Your task to perform on an android device: Clear the shopping cart on costco.com. Search for "bose soundlink mini" on costco.com, select the first entry, and add it to the cart. Image 0: 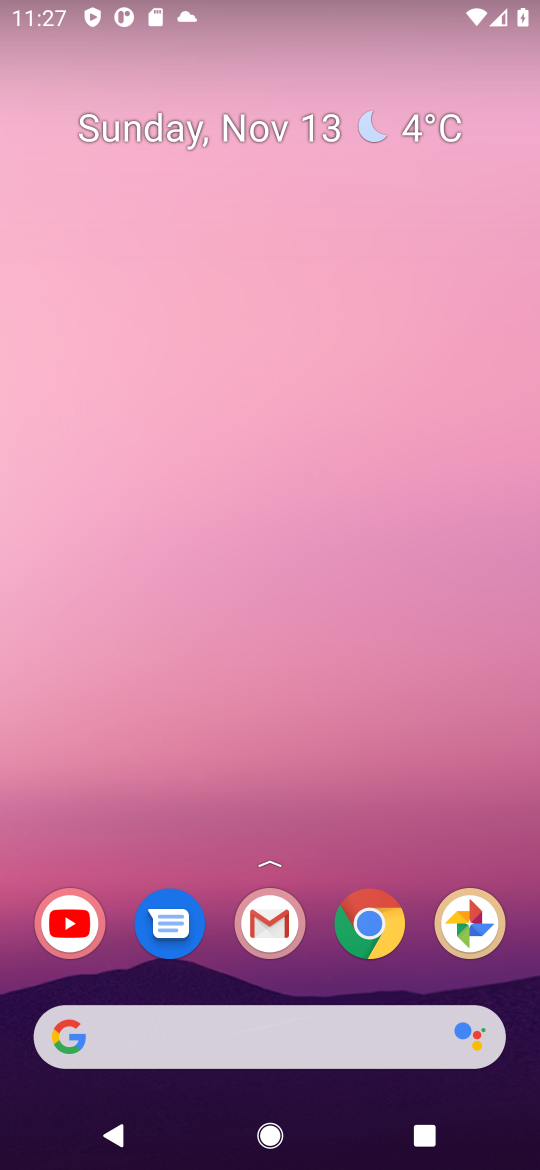
Step 0: click (380, 924)
Your task to perform on an android device: Clear the shopping cart on costco.com. Search for "bose soundlink mini" on costco.com, select the first entry, and add it to the cart. Image 1: 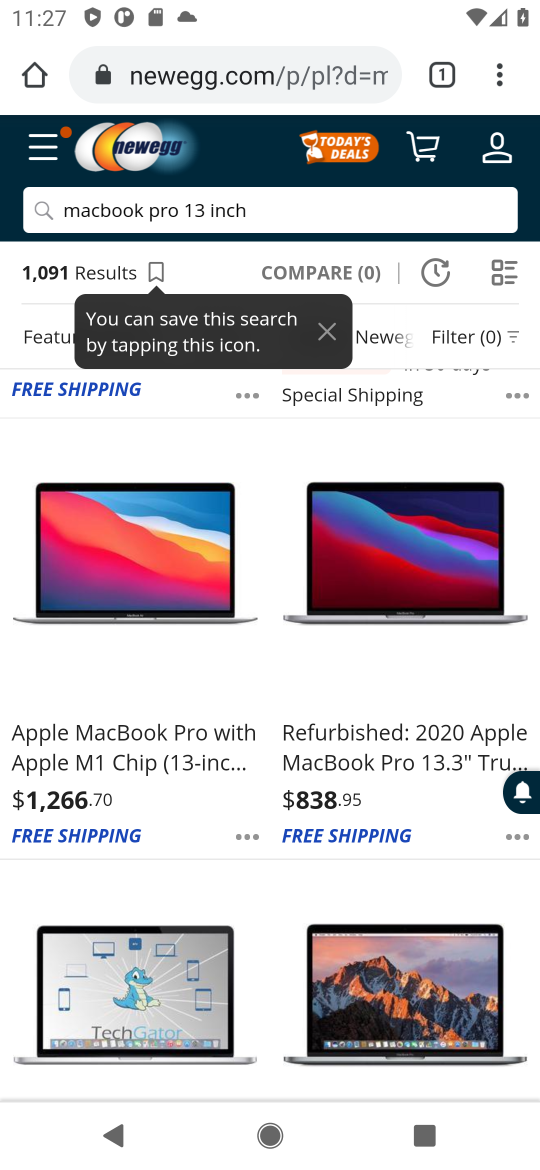
Step 1: click (279, 70)
Your task to perform on an android device: Clear the shopping cart on costco.com. Search for "bose soundlink mini" on costco.com, select the first entry, and add it to the cart. Image 2: 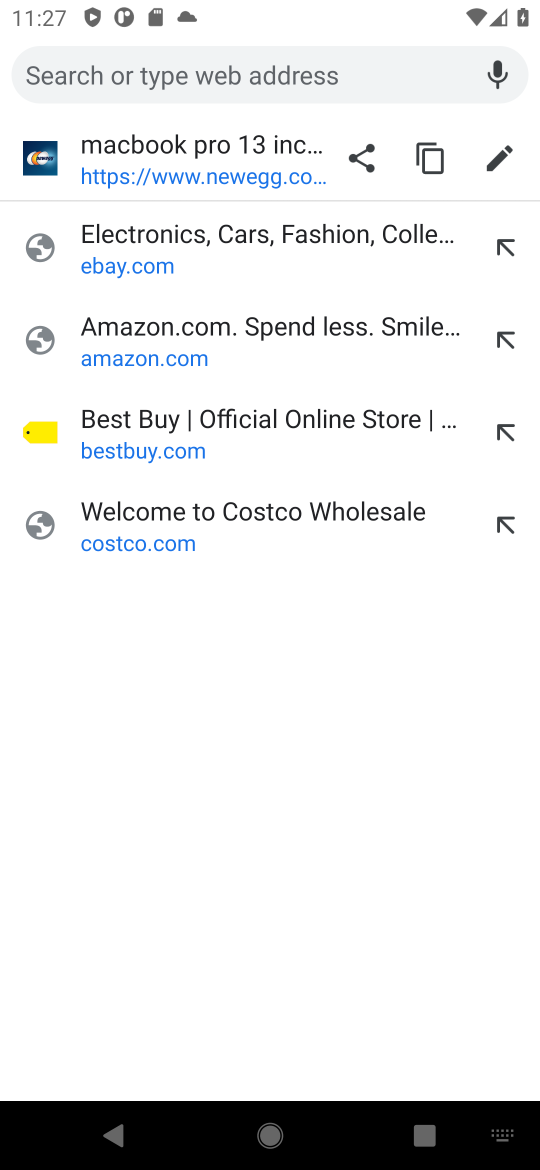
Step 2: click (221, 512)
Your task to perform on an android device: Clear the shopping cart on costco.com. Search for "bose soundlink mini" on costco.com, select the first entry, and add it to the cart. Image 3: 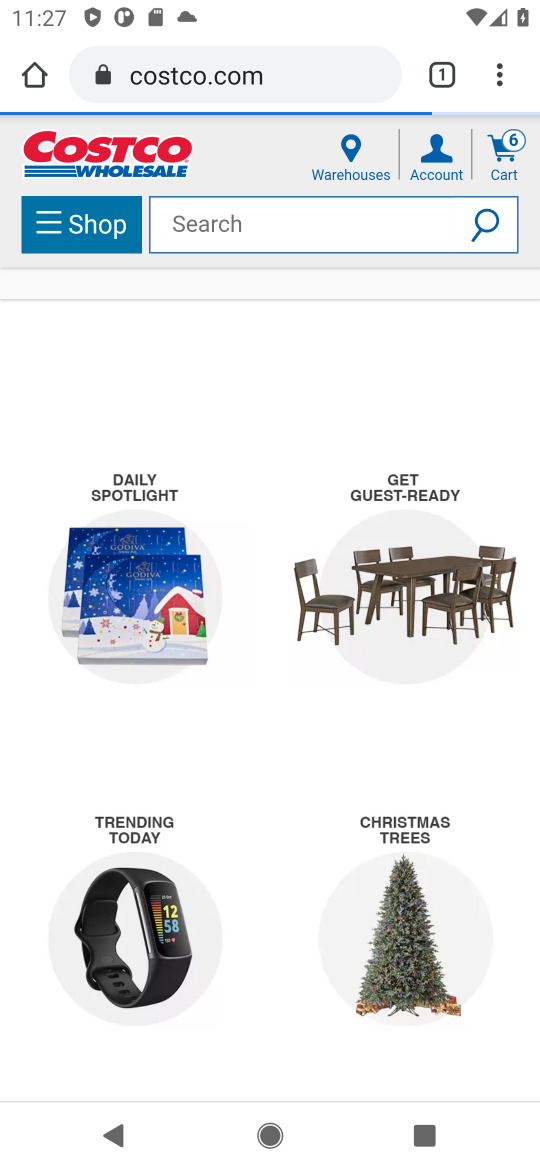
Step 3: click (495, 156)
Your task to perform on an android device: Clear the shopping cart on costco.com. Search for "bose soundlink mini" on costco.com, select the first entry, and add it to the cart. Image 4: 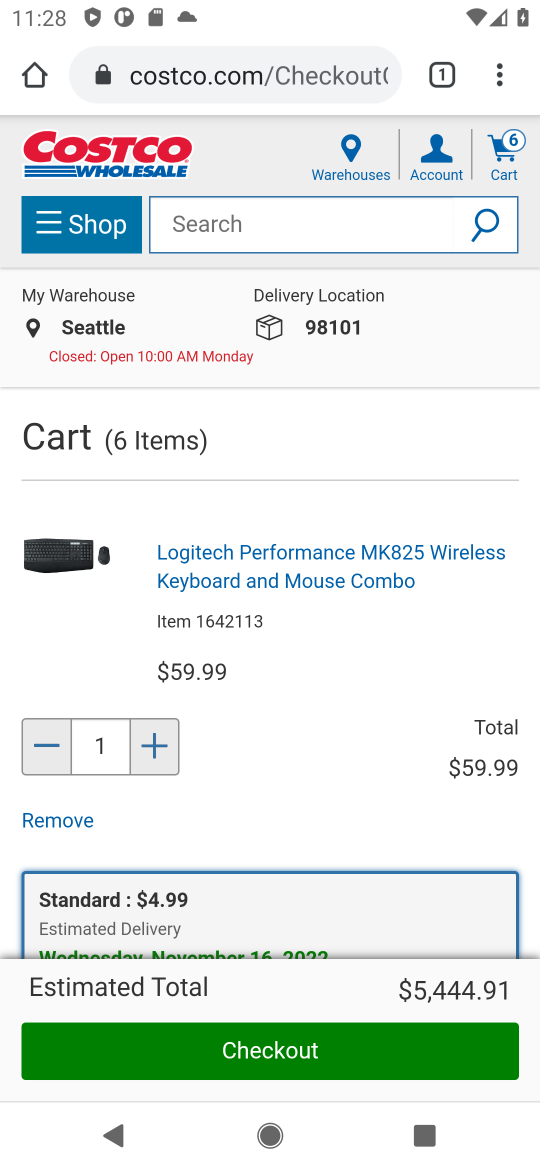
Step 4: drag from (303, 578) to (374, 313)
Your task to perform on an android device: Clear the shopping cart on costco.com. Search for "bose soundlink mini" on costco.com, select the first entry, and add it to the cart. Image 5: 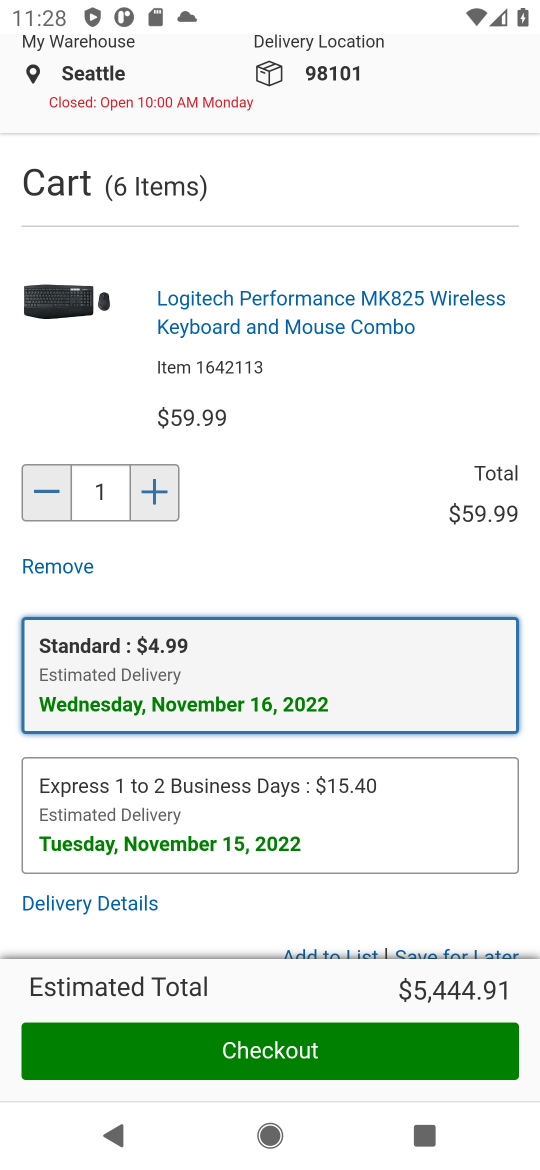
Step 5: click (34, 503)
Your task to perform on an android device: Clear the shopping cart on costco.com. Search for "bose soundlink mini" on costco.com, select the first entry, and add it to the cart. Image 6: 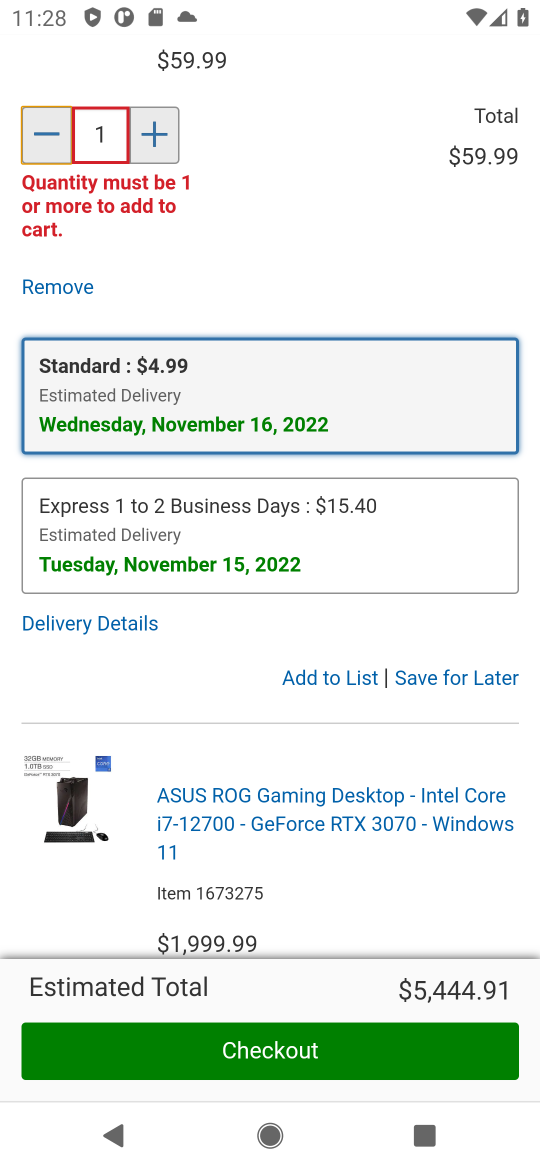
Step 6: click (72, 289)
Your task to perform on an android device: Clear the shopping cart on costco.com. Search for "bose soundlink mini" on costco.com, select the first entry, and add it to the cart. Image 7: 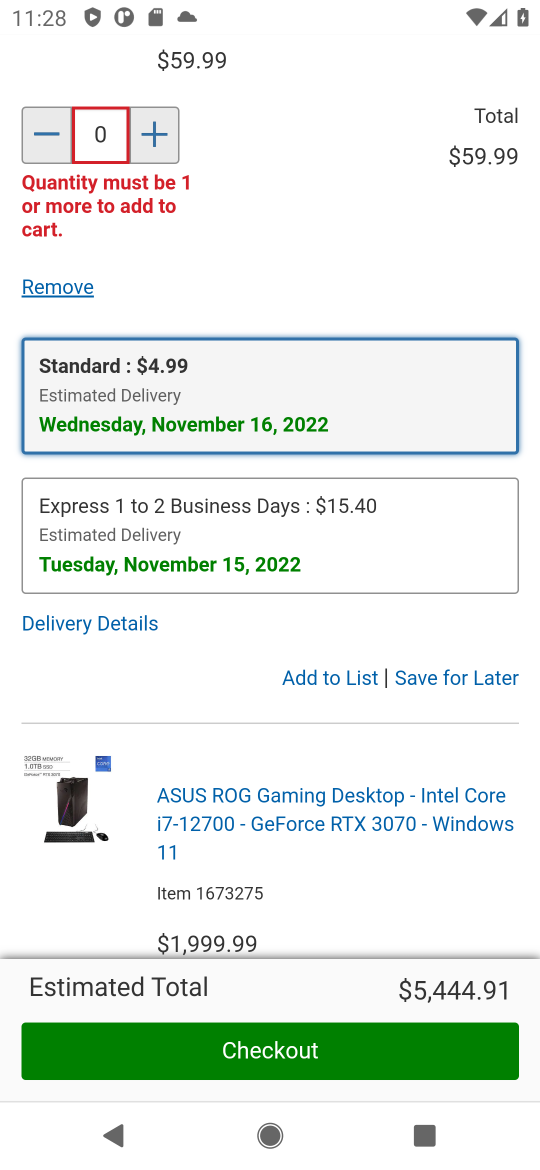
Step 7: drag from (191, 660) to (329, 235)
Your task to perform on an android device: Clear the shopping cart on costco.com. Search for "bose soundlink mini" on costco.com, select the first entry, and add it to the cart. Image 8: 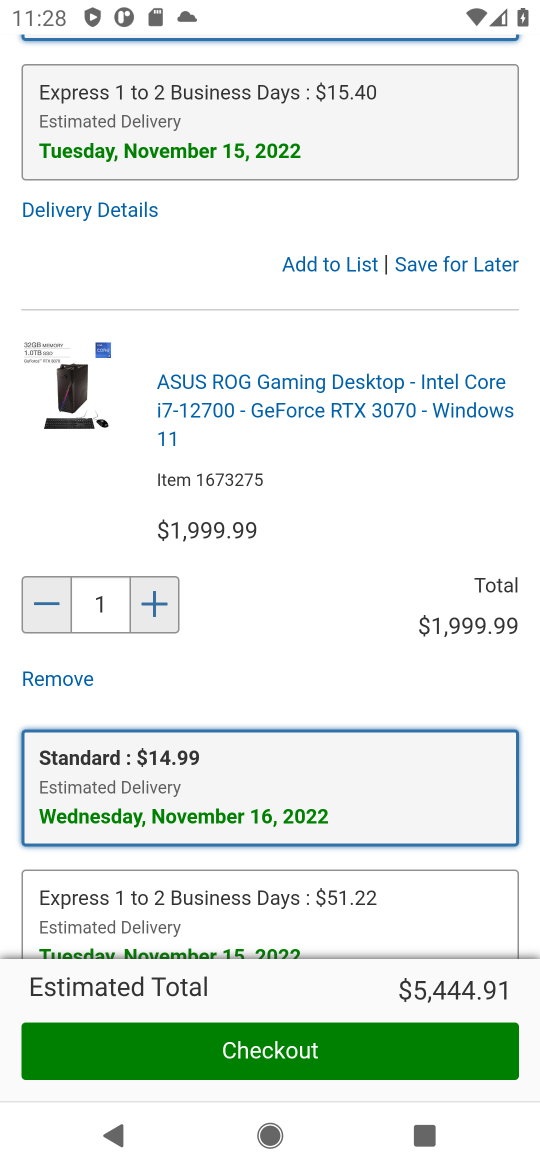
Step 8: drag from (290, 622) to (365, 430)
Your task to perform on an android device: Clear the shopping cart on costco.com. Search for "bose soundlink mini" on costco.com, select the first entry, and add it to the cart. Image 9: 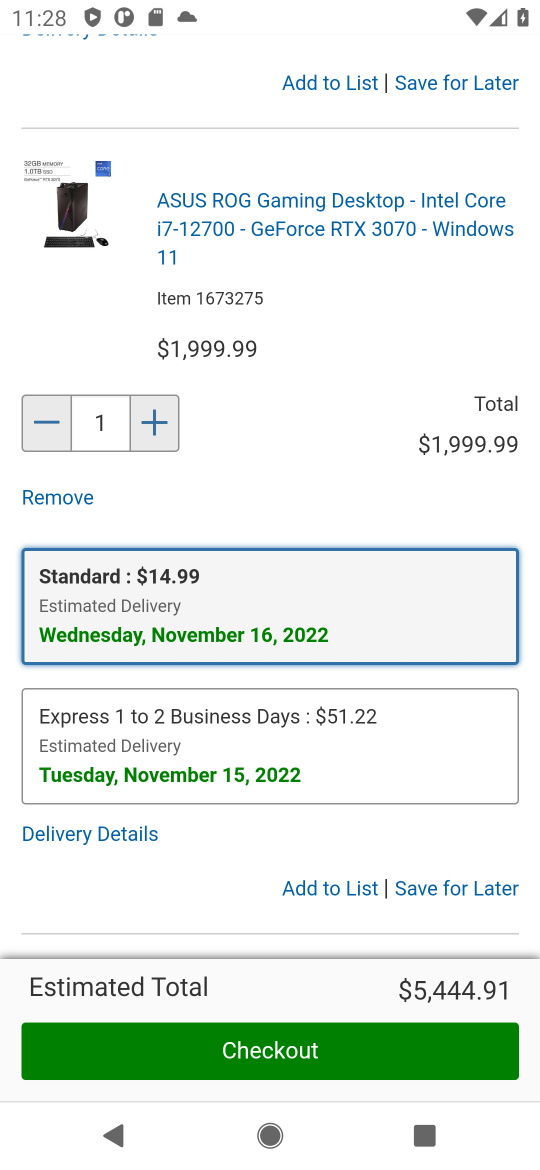
Step 9: click (29, 411)
Your task to perform on an android device: Clear the shopping cart on costco.com. Search for "bose soundlink mini" on costco.com, select the first entry, and add it to the cart. Image 10: 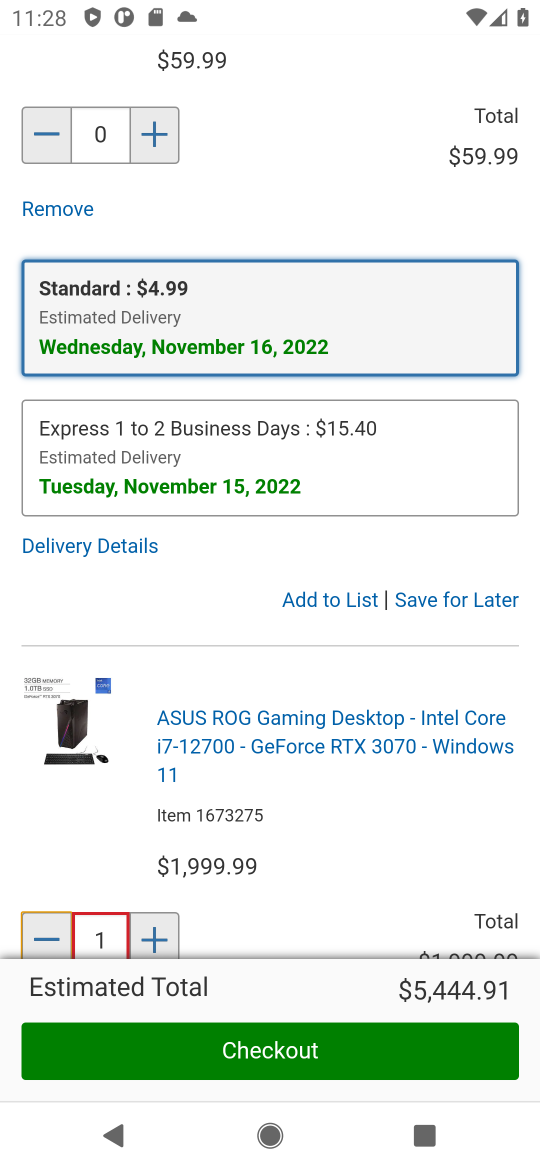
Step 10: drag from (162, 580) to (278, 353)
Your task to perform on an android device: Clear the shopping cart on costco.com. Search for "bose soundlink mini" on costco.com, select the first entry, and add it to the cart. Image 11: 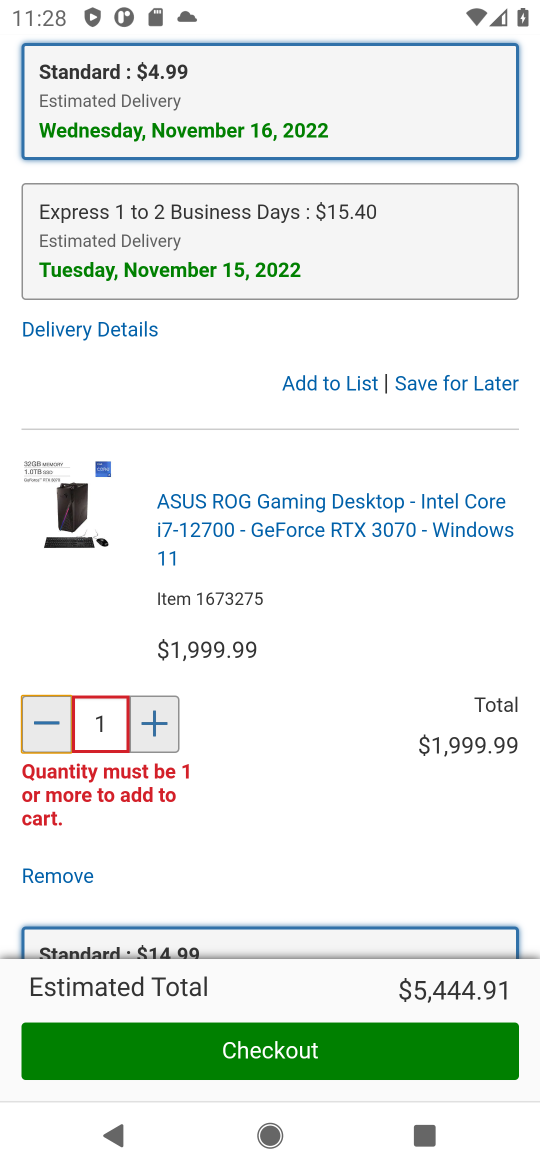
Step 11: click (70, 874)
Your task to perform on an android device: Clear the shopping cart on costco.com. Search for "bose soundlink mini" on costco.com, select the first entry, and add it to the cart. Image 12: 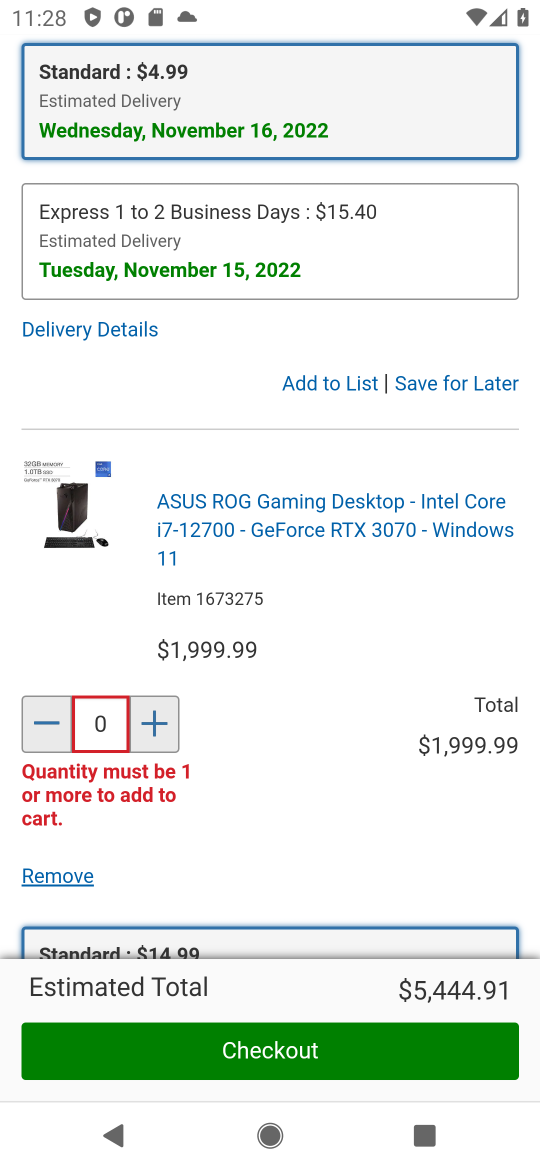
Step 12: drag from (263, 803) to (401, 305)
Your task to perform on an android device: Clear the shopping cart on costco.com. Search for "bose soundlink mini" on costco.com, select the first entry, and add it to the cart. Image 13: 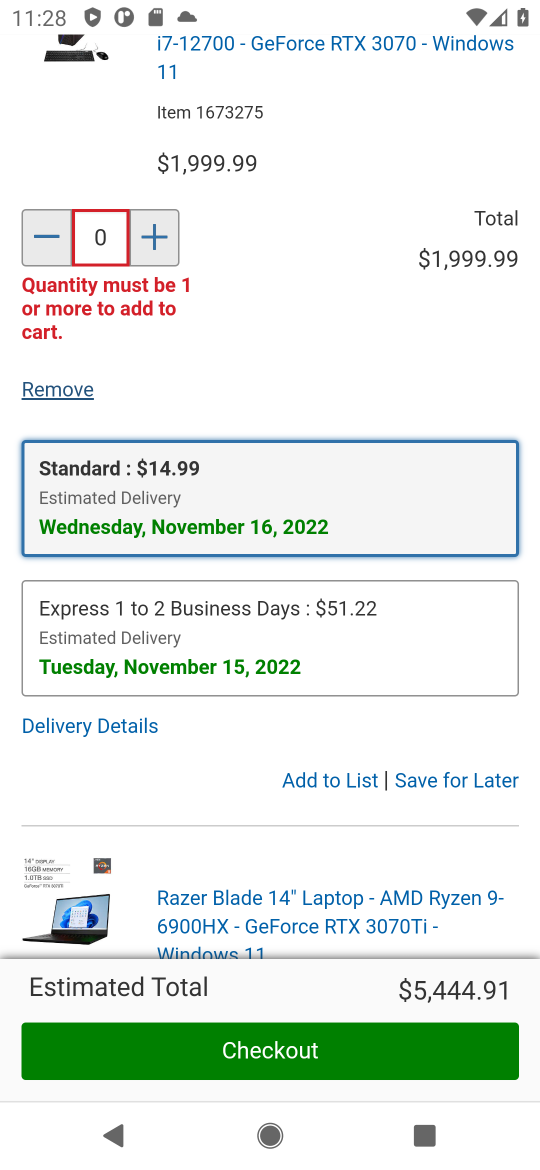
Step 13: drag from (185, 809) to (281, 510)
Your task to perform on an android device: Clear the shopping cart on costco.com. Search for "bose soundlink mini" on costco.com, select the first entry, and add it to the cart. Image 14: 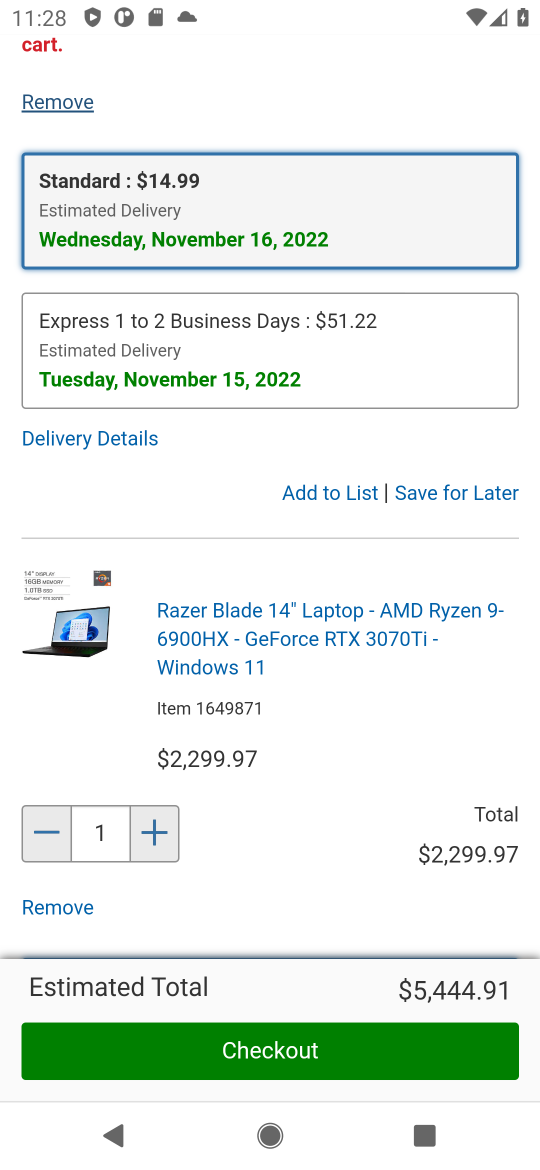
Step 14: click (51, 844)
Your task to perform on an android device: Clear the shopping cart on costco.com. Search for "bose soundlink mini" on costco.com, select the first entry, and add it to the cart. Image 15: 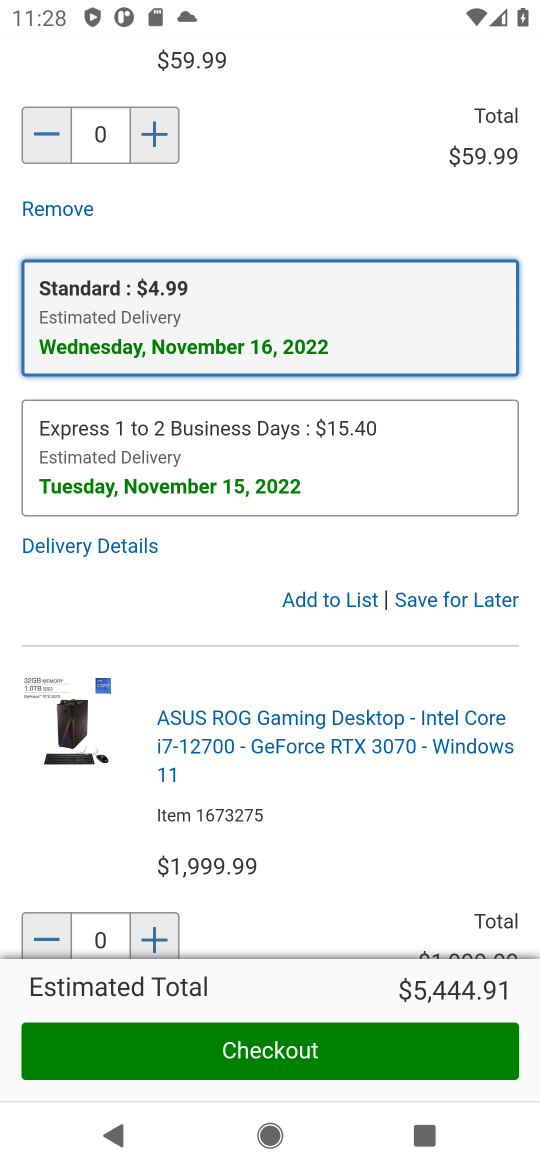
Step 15: drag from (310, 879) to (461, 252)
Your task to perform on an android device: Clear the shopping cart on costco.com. Search for "bose soundlink mini" on costco.com, select the first entry, and add it to the cart. Image 16: 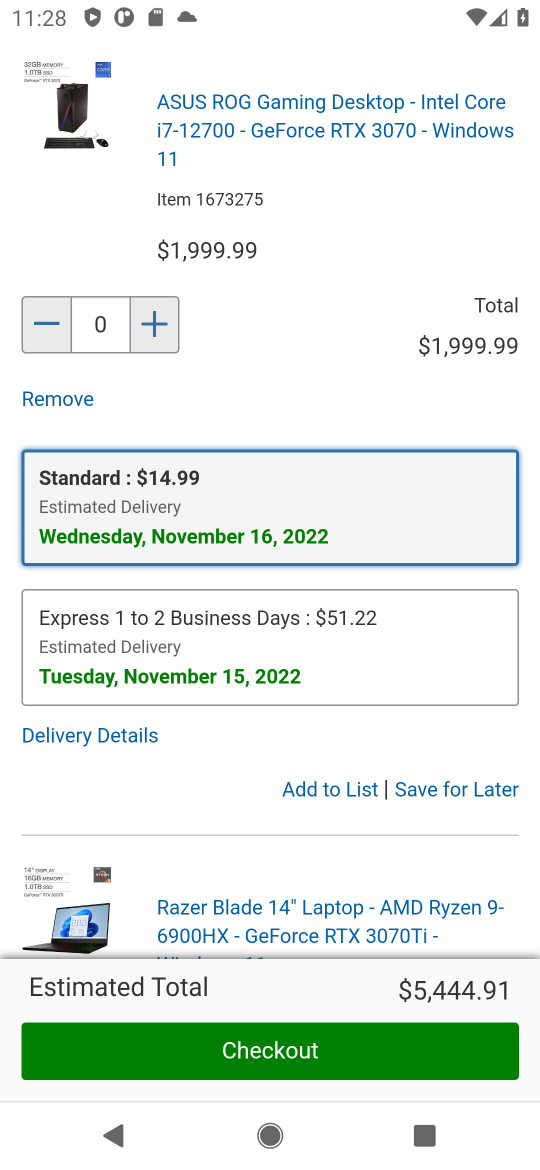
Step 16: click (60, 334)
Your task to perform on an android device: Clear the shopping cart on costco.com. Search for "bose soundlink mini" on costco.com, select the first entry, and add it to the cart. Image 17: 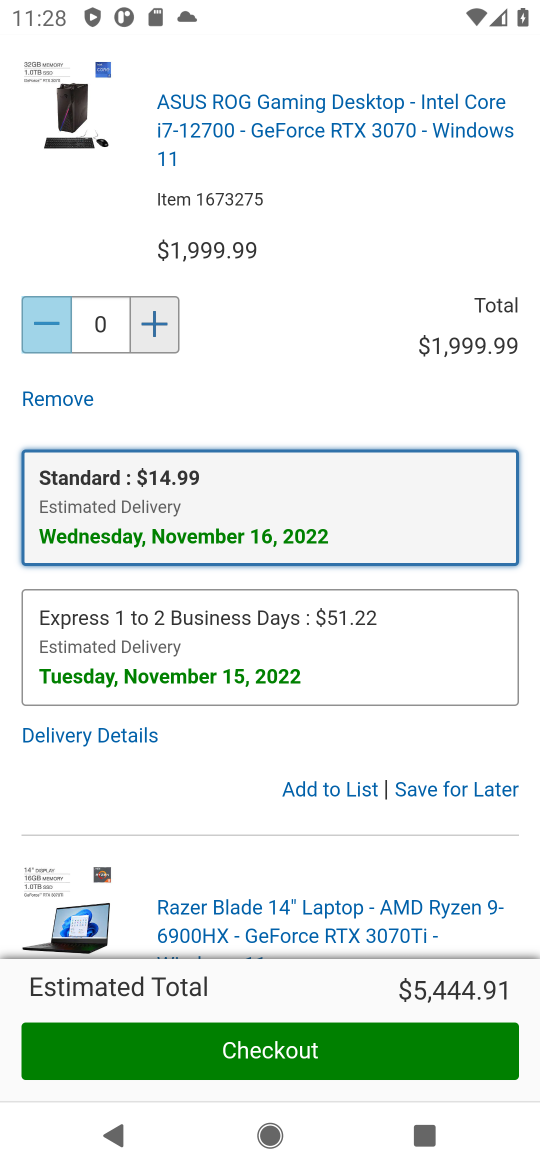
Step 17: click (73, 404)
Your task to perform on an android device: Clear the shopping cart on costco.com. Search for "bose soundlink mini" on costco.com, select the first entry, and add it to the cart. Image 18: 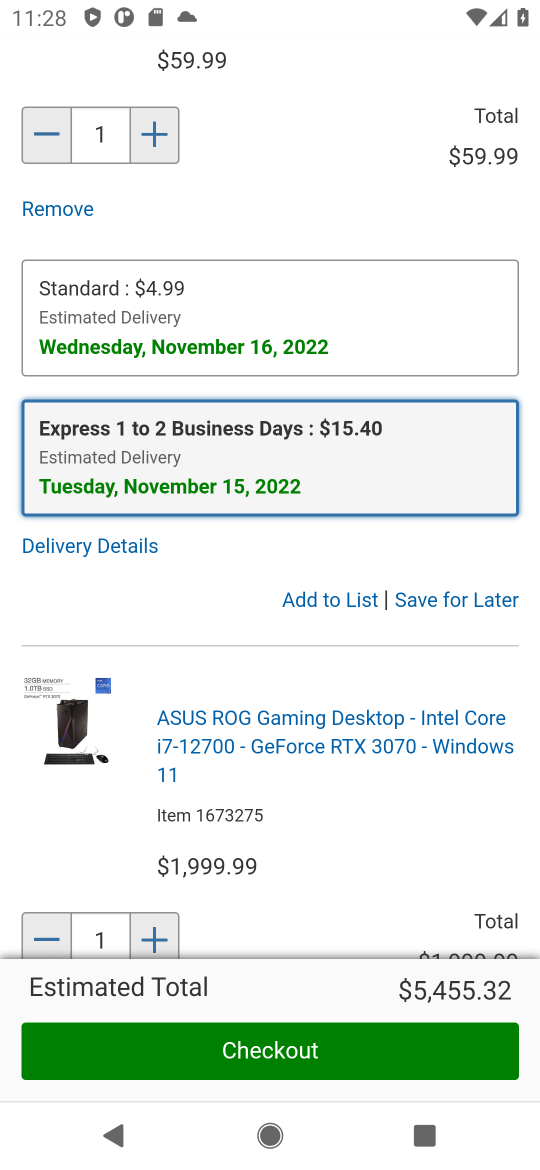
Step 18: drag from (286, 821) to (410, 234)
Your task to perform on an android device: Clear the shopping cart on costco.com. Search for "bose soundlink mini" on costco.com, select the first entry, and add it to the cart. Image 19: 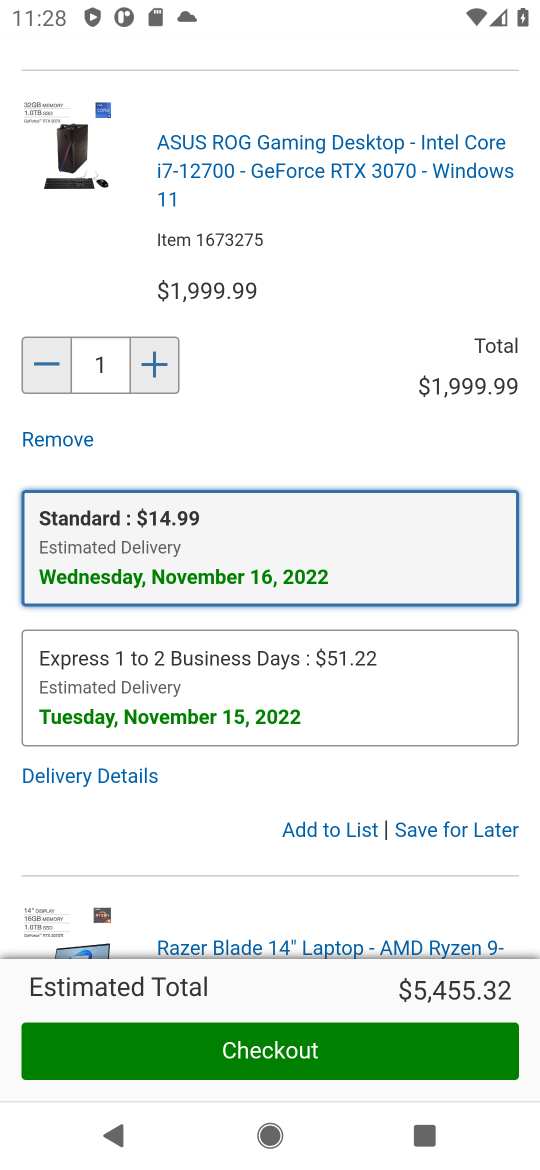
Step 19: click (31, 357)
Your task to perform on an android device: Clear the shopping cart on costco.com. Search for "bose soundlink mini" on costco.com, select the first entry, and add it to the cart. Image 20: 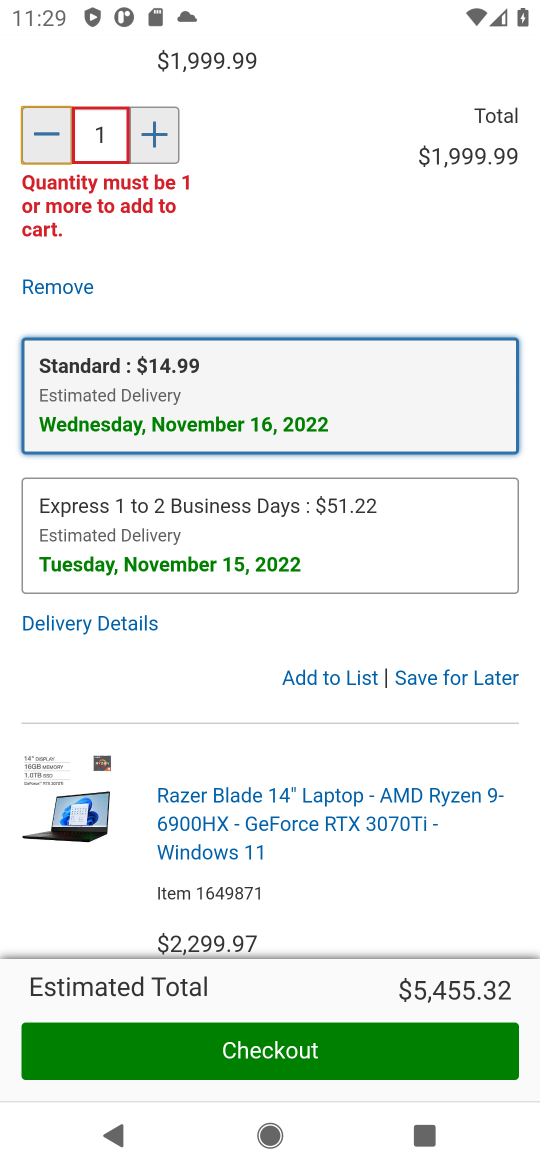
Step 20: click (72, 288)
Your task to perform on an android device: Clear the shopping cart on costco.com. Search for "bose soundlink mini" on costco.com, select the first entry, and add it to the cart. Image 21: 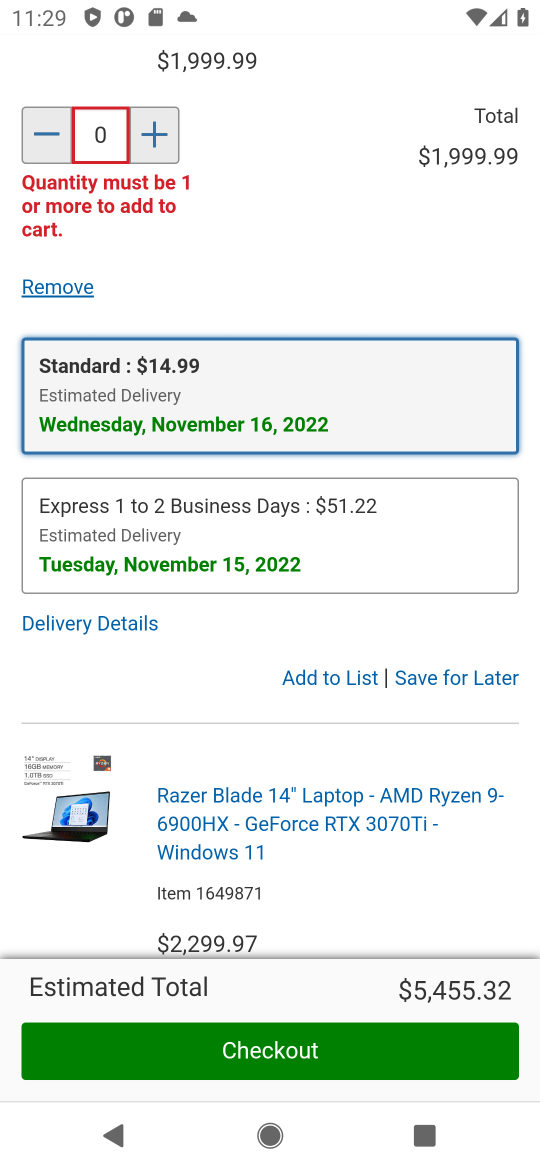
Step 21: drag from (219, 645) to (267, 130)
Your task to perform on an android device: Clear the shopping cart on costco.com. Search for "bose soundlink mini" on costco.com, select the first entry, and add it to the cart. Image 22: 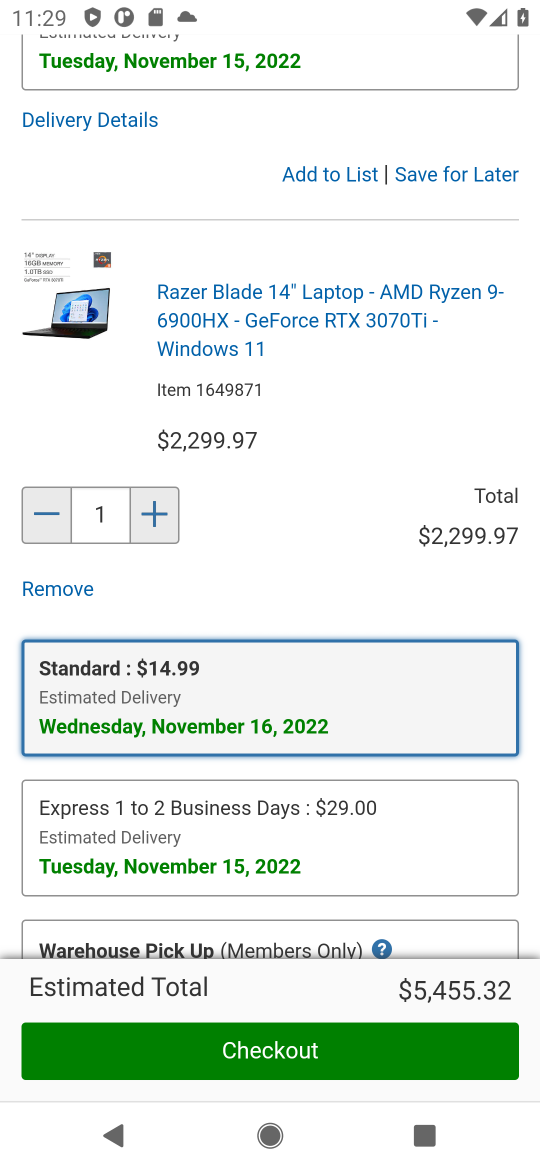
Step 22: click (52, 508)
Your task to perform on an android device: Clear the shopping cart on costco.com. Search for "bose soundlink mini" on costco.com, select the first entry, and add it to the cart. Image 23: 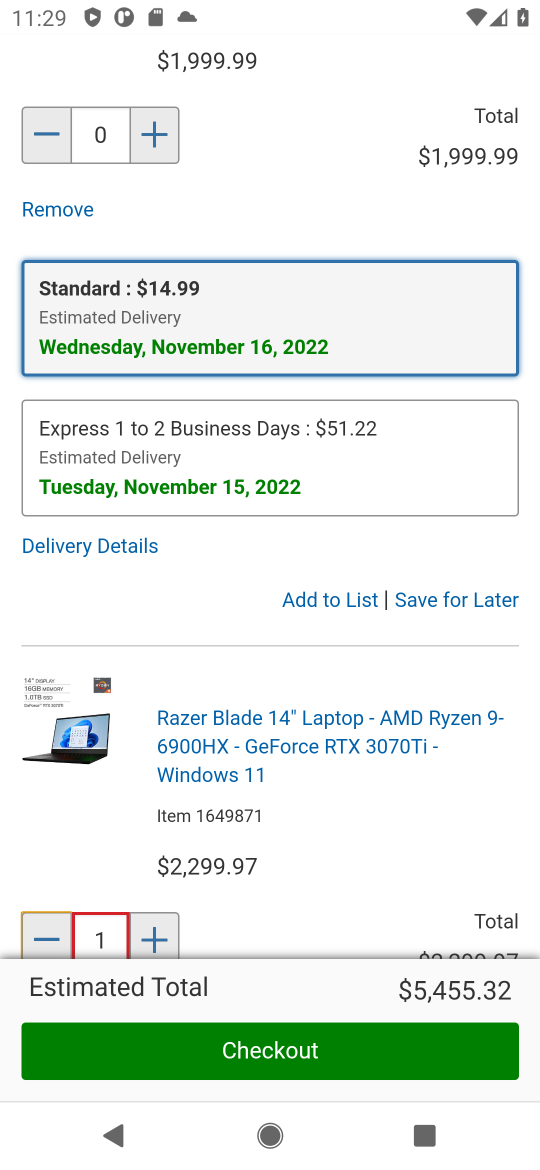
Step 23: drag from (188, 555) to (265, 267)
Your task to perform on an android device: Clear the shopping cart on costco.com. Search for "bose soundlink mini" on costco.com, select the first entry, and add it to the cart. Image 24: 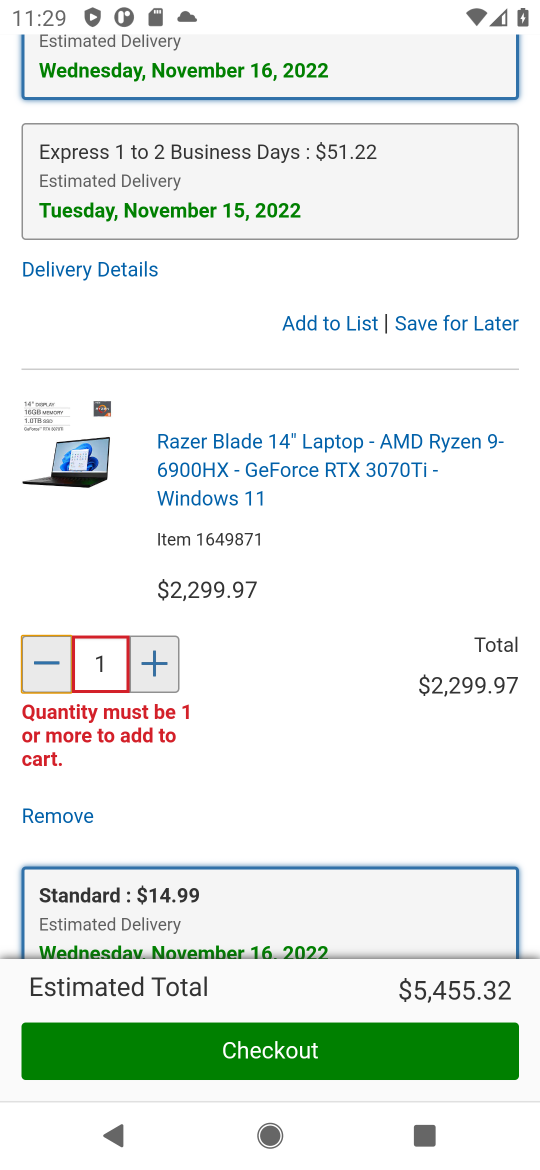
Step 24: click (69, 814)
Your task to perform on an android device: Clear the shopping cart on costco.com. Search for "bose soundlink mini" on costco.com, select the first entry, and add it to the cart. Image 25: 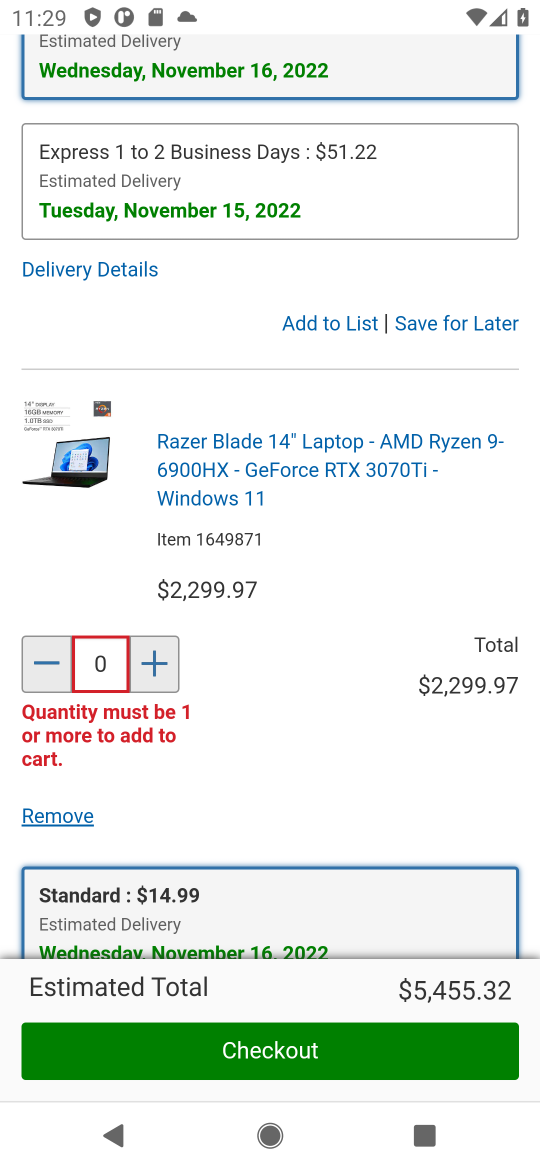
Step 25: drag from (331, 755) to (377, 103)
Your task to perform on an android device: Clear the shopping cart on costco.com. Search for "bose soundlink mini" on costco.com, select the first entry, and add it to the cart. Image 26: 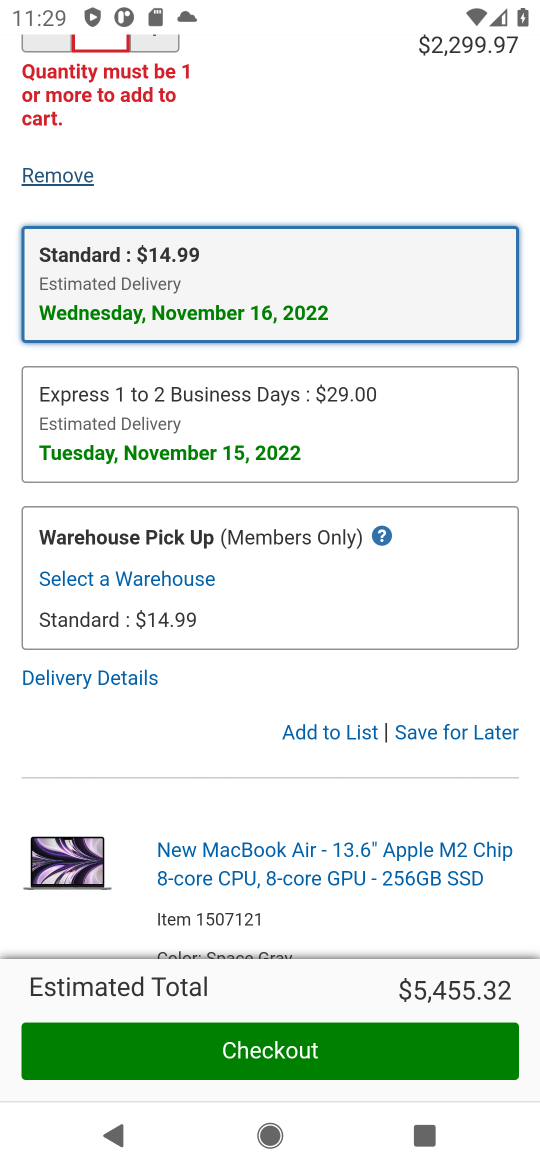
Step 26: click (77, 169)
Your task to perform on an android device: Clear the shopping cart on costco.com. Search for "bose soundlink mini" on costco.com, select the first entry, and add it to the cart. Image 27: 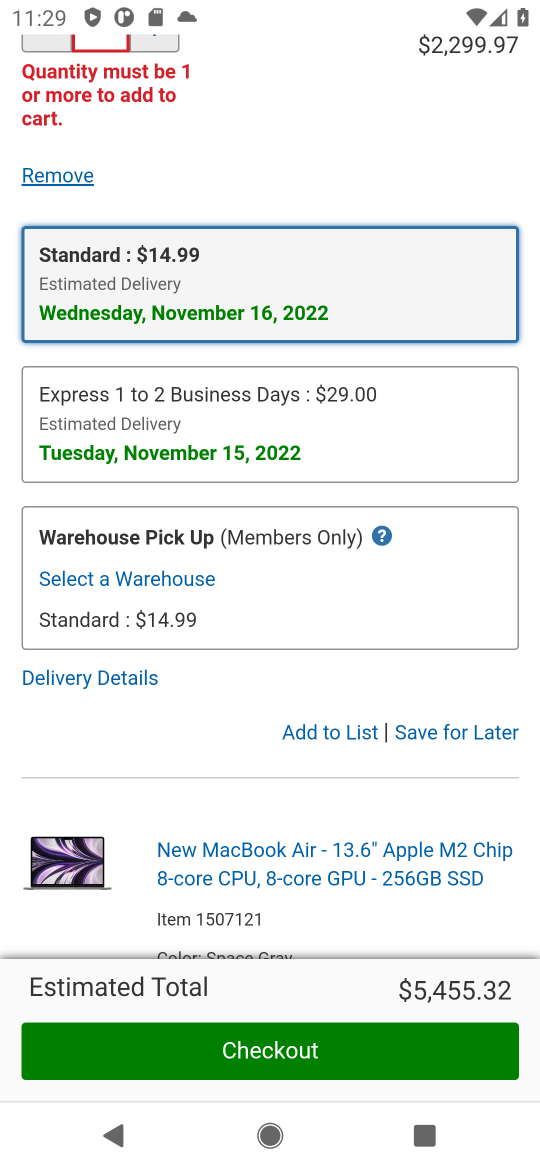
Step 27: drag from (375, 652) to (428, 236)
Your task to perform on an android device: Clear the shopping cart on costco.com. Search for "bose soundlink mini" on costco.com, select the first entry, and add it to the cart. Image 28: 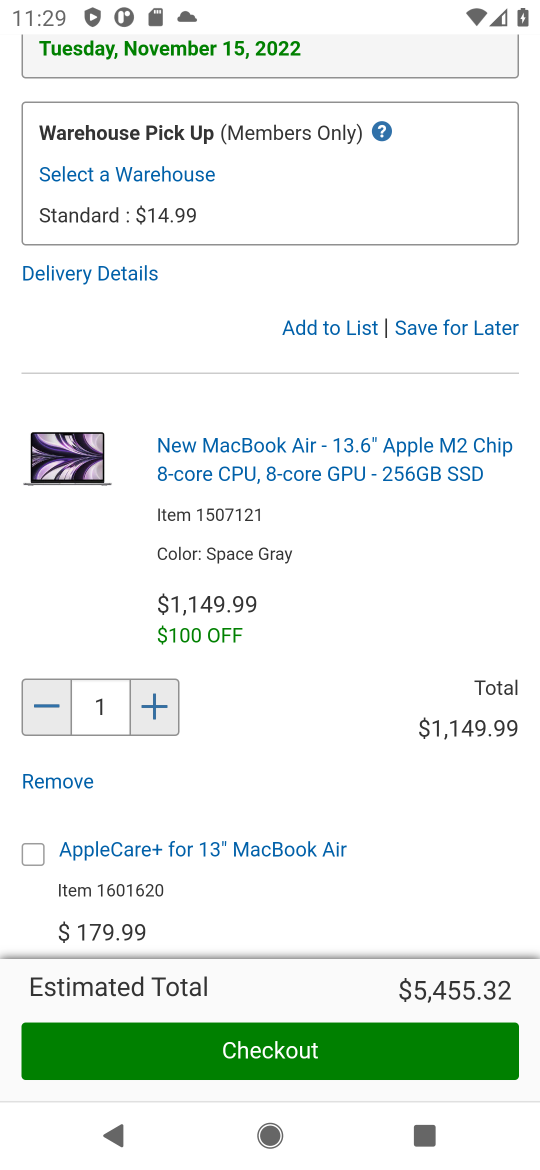
Step 28: drag from (259, 765) to (386, 387)
Your task to perform on an android device: Clear the shopping cart on costco.com. Search for "bose soundlink mini" on costco.com, select the first entry, and add it to the cart. Image 29: 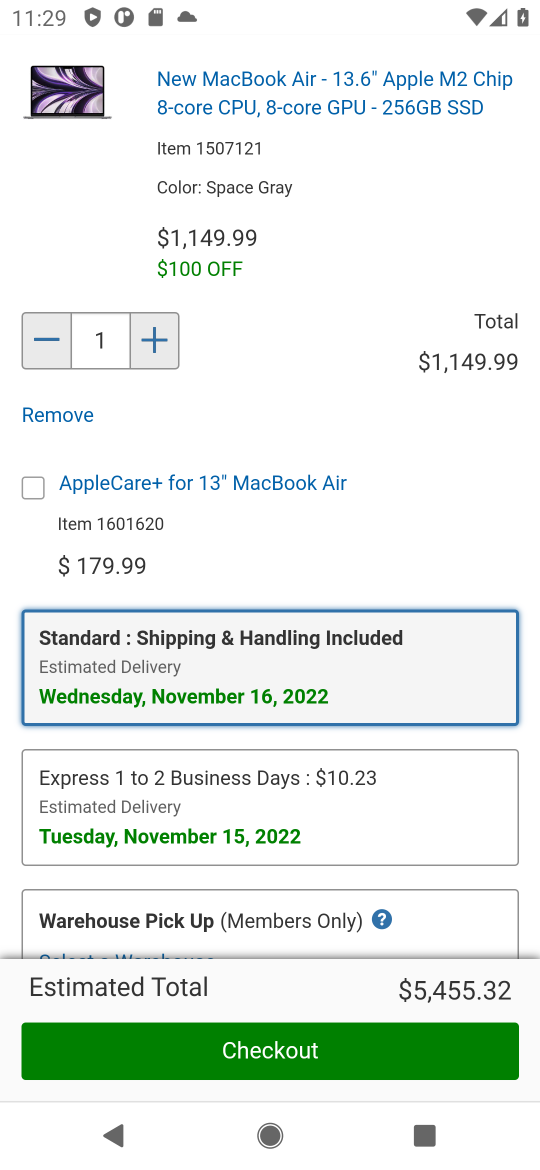
Step 29: click (60, 349)
Your task to perform on an android device: Clear the shopping cart on costco.com. Search for "bose soundlink mini" on costco.com, select the first entry, and add it to the cart. Image 30: 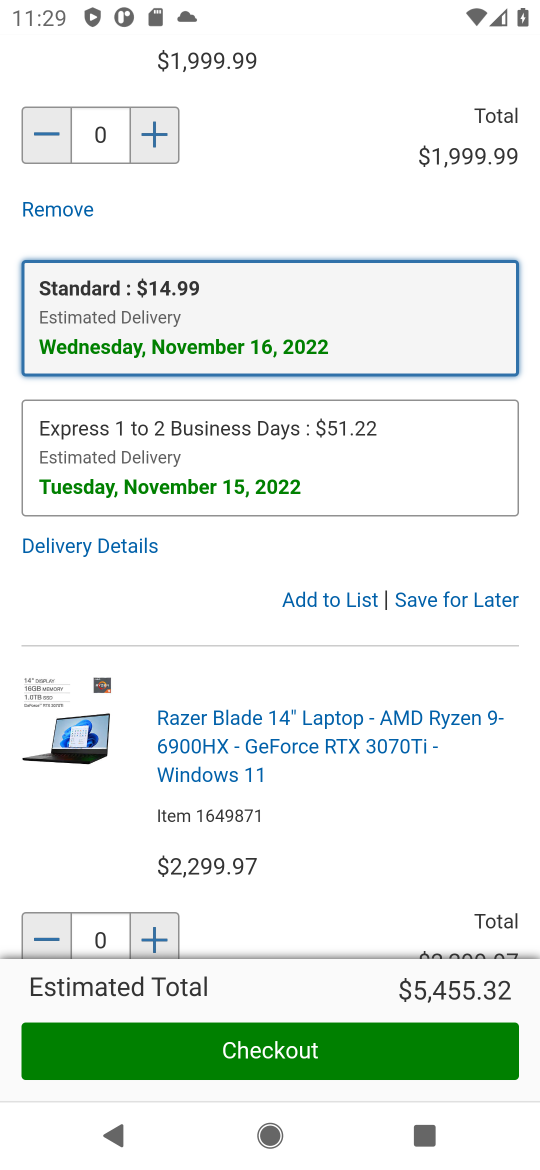
Step 30: drag from (205, 655) to (290, 134)
Your task to perform on an android device: Clear the shopping cart on costco.com. Search for "bose soundlink mini" on costco.com, select the first entry, and add it to the cart. Image 31: 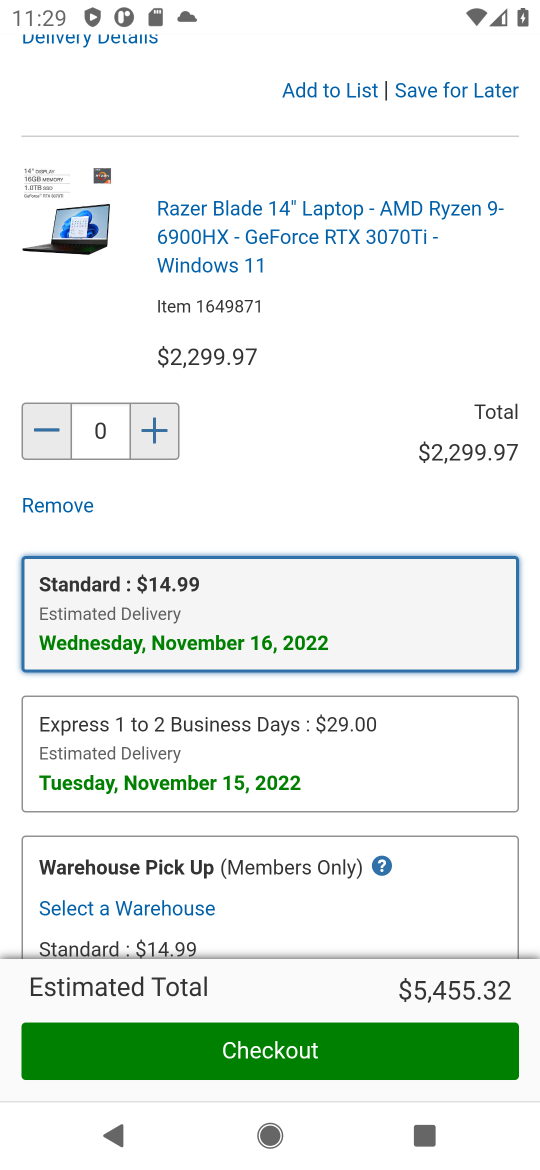
Step 31: drag from (302, 737) to (369, 248)
Your task to perform on an android device: Clear the shopping cart on costco.com. Search for "bose soundlink mini" on costco.com, select the first entry, and add it to the cart. Image 32: 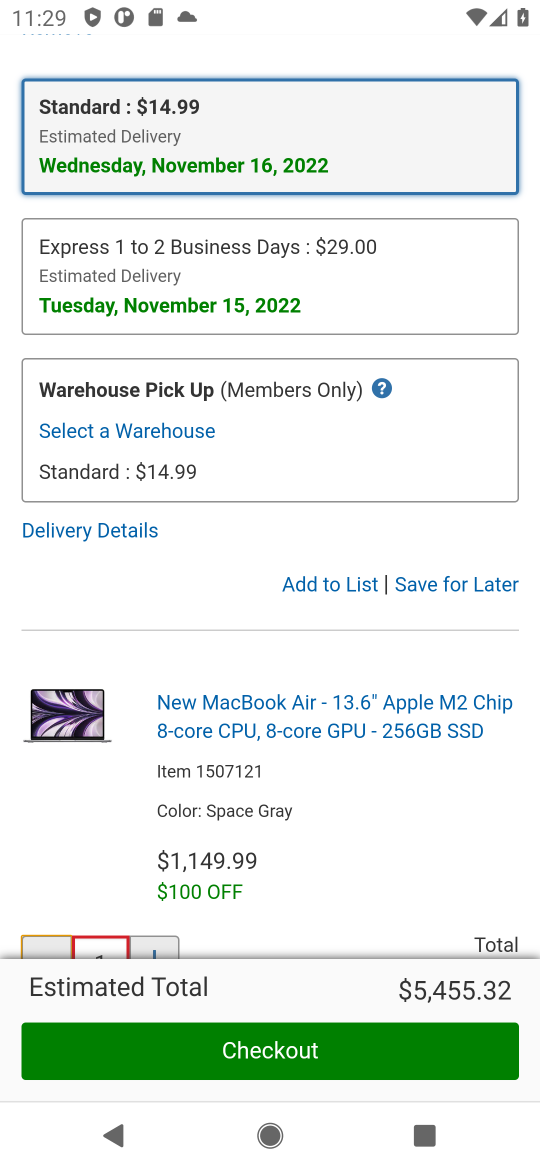
Step 32: drag from (378, 891) to (431, 409)
Your task to perform on an android device: Clear the shopping cart on costco.com. Search for "bose soundlink mini" on costco.com, select the first entry, and add it to the cart. Image 33: 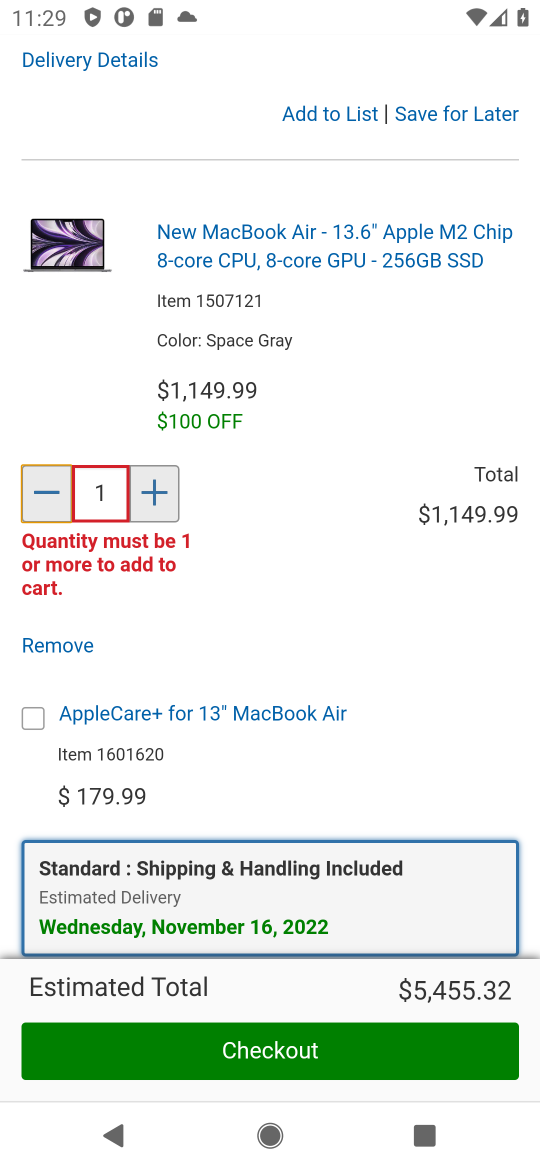
Step 33: click (49, 650)
Your task to perform on an android device: Clear the shopping cart on costco.com. Search for "bose soundlink mini" on costco.com, select the first entry, and add it to the cart. Image 34: 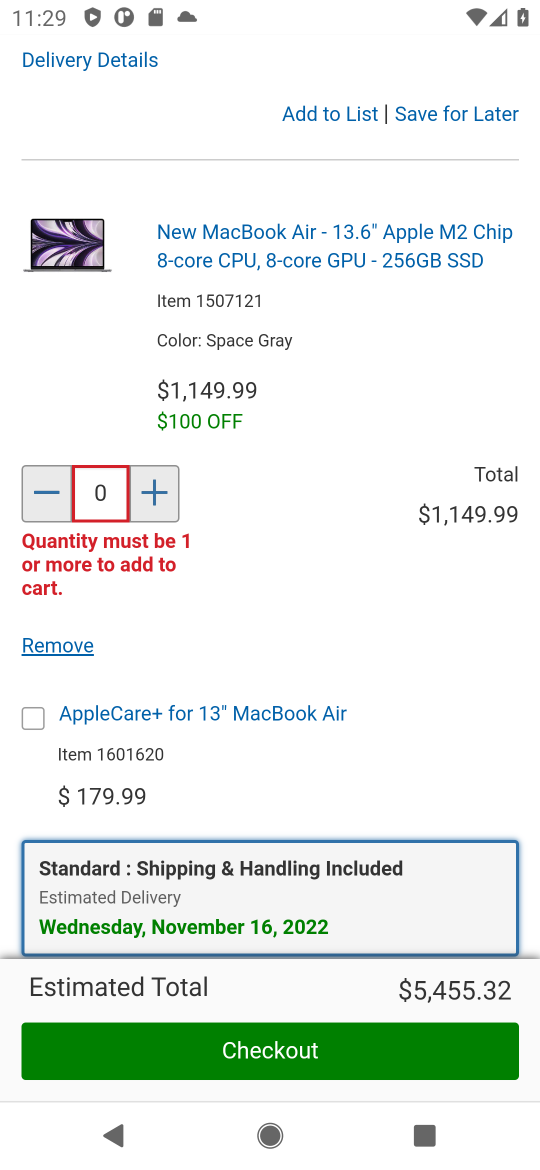
Step 34: drag from (375, 427) to (350, 1052)
Your task to perform on an android device: Clear the shopping cart on costco.com. Search for "bose soundlink mini" on costco.com, select the first entry, and add it to the cart. Image 35: 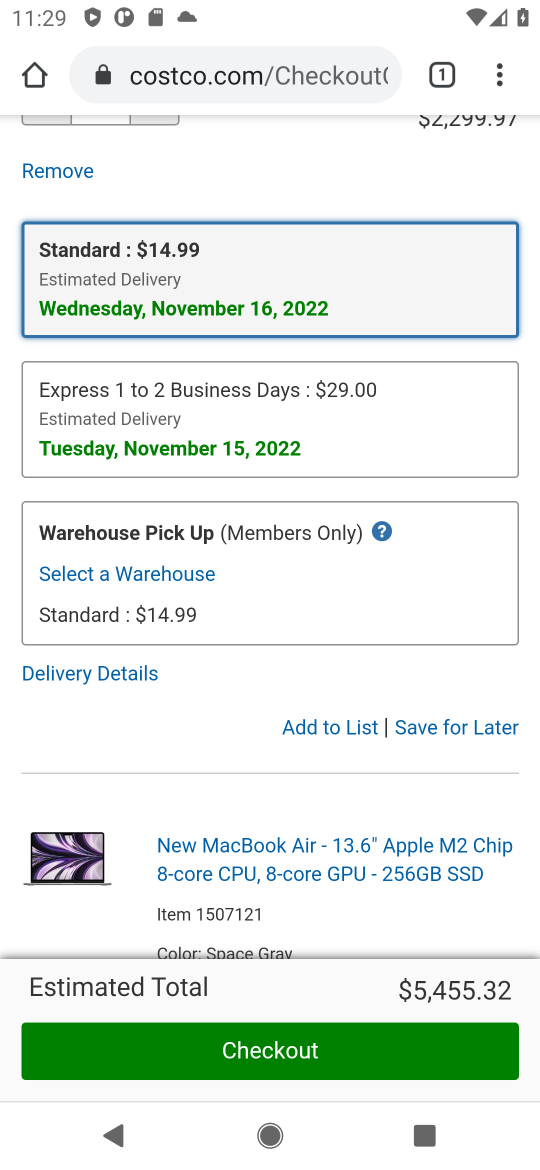
Step 35: drag from (386, 411) to (440, 801)
Your task to perform on an android device: Clear the shopping cart on costco.com. Search for "bose soundlink mini" on costco.com, select the first entry, and add it to the cart. Image 36: 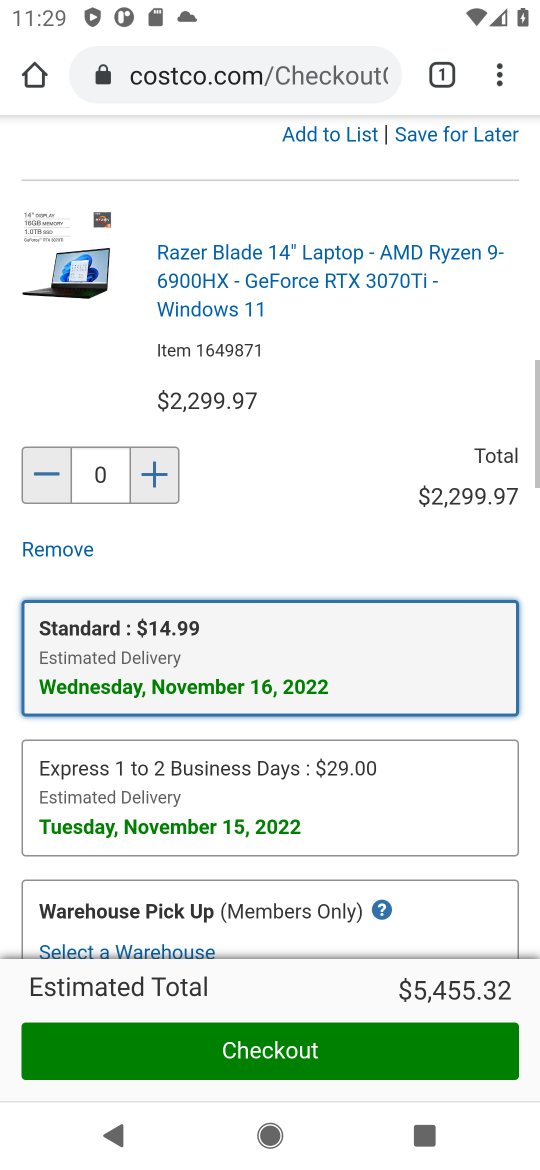
Step 36: drag from (392, 423) to (394, 899)
Your task to perform on an android device: Clear the shopping cart on costco.com. Search for "bose soundlink mini" on costco.com, select the first entry, and add it to the cart. Image 37: 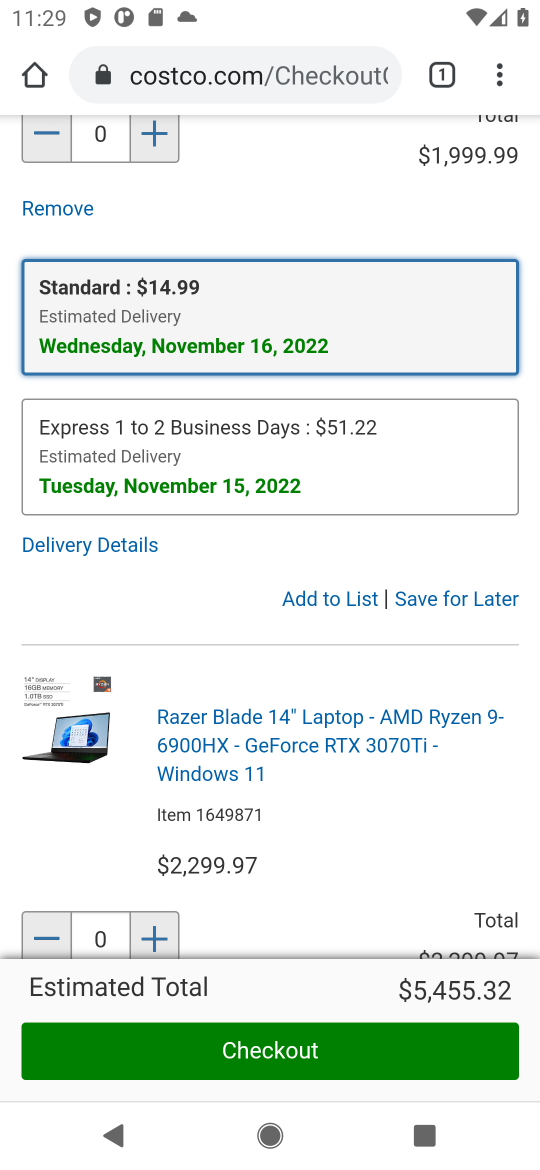
Step 37: click (379, 939)
Your task to perform on an android device: Clear the shopping cart on costco.com. Search for "bose soundlink mini" on costco.com, select the first entry, and add it to the cart. Image 38: 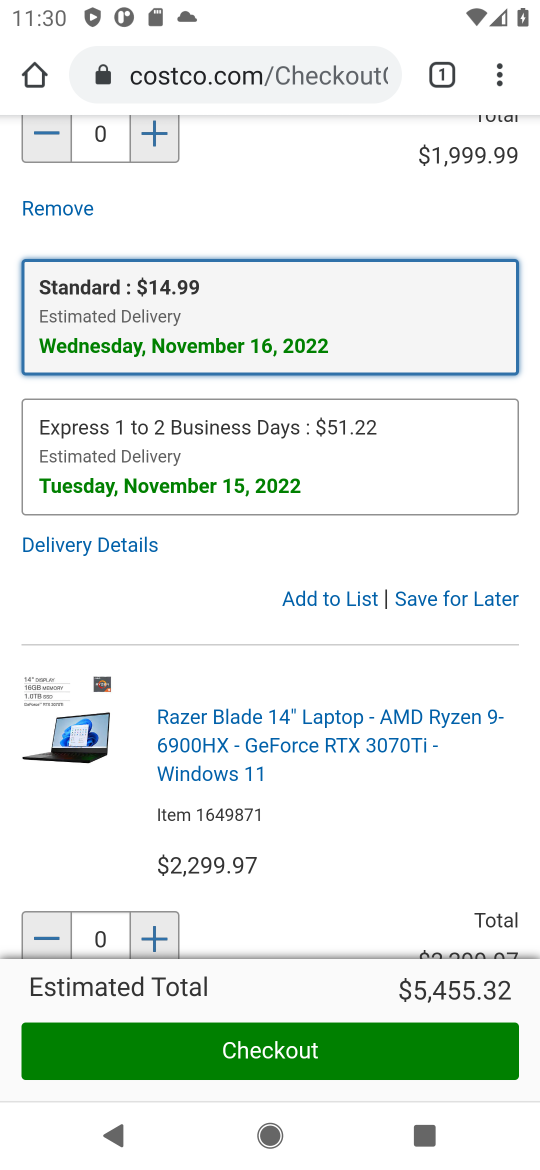
Step 38: drag from (323, 223) to (283, 903)
Your task to perform on an android device: Clear the shopping cart on costco.com. Search for "bose soundlink mini" on costco.com, select the first entry, and add it to the cart. Image 39: 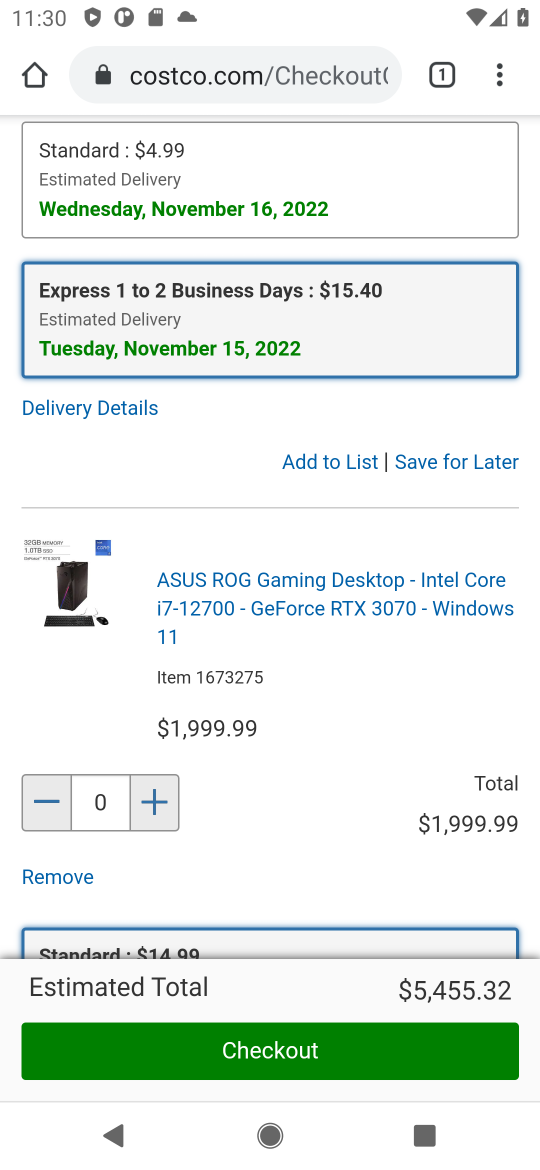
Step 39: drag from (323, 174) to (408, 1016)
Your task to perform on an android device: Clear the shopping cart on costco.com. Search for "bose soundlink mini" on costco.com, select the first entry, and add it to the cart. Image 40: 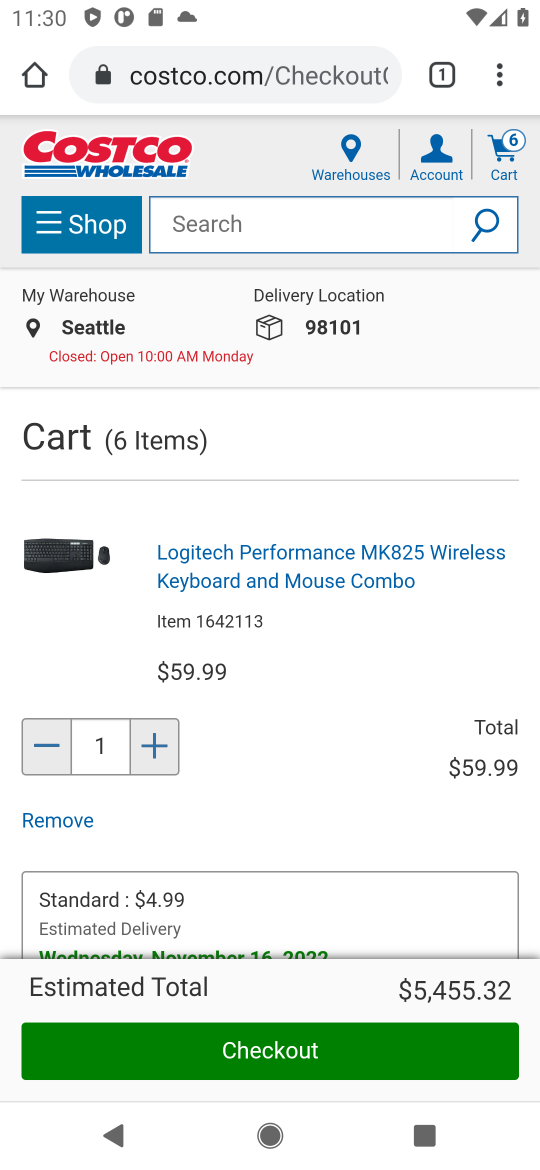
Step 40: click (409, 222)
Your task to perform on an android device: Clear the shopping cart on costco.com. Search for "bose soundlink mini" on costco.com, select the first entry, and add it to the cart. Image 41: 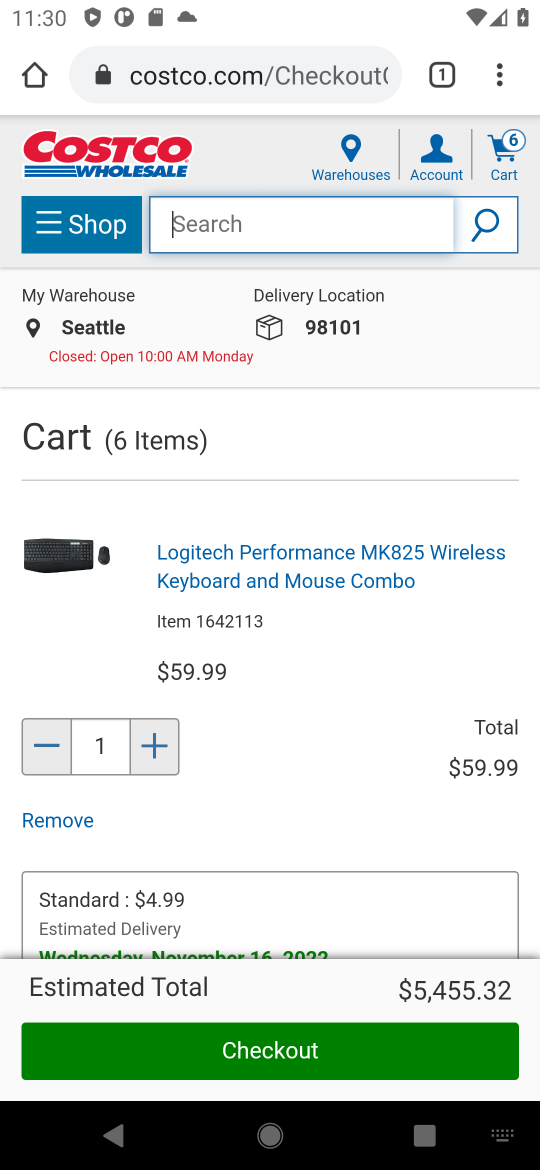
Step 41: press enter
Your task to perform on an android device: Clear the shopping cart on costco.com. Search for "bose soundlink mini" on costco.com, select the first entry, and add it to the cart. Image 42: 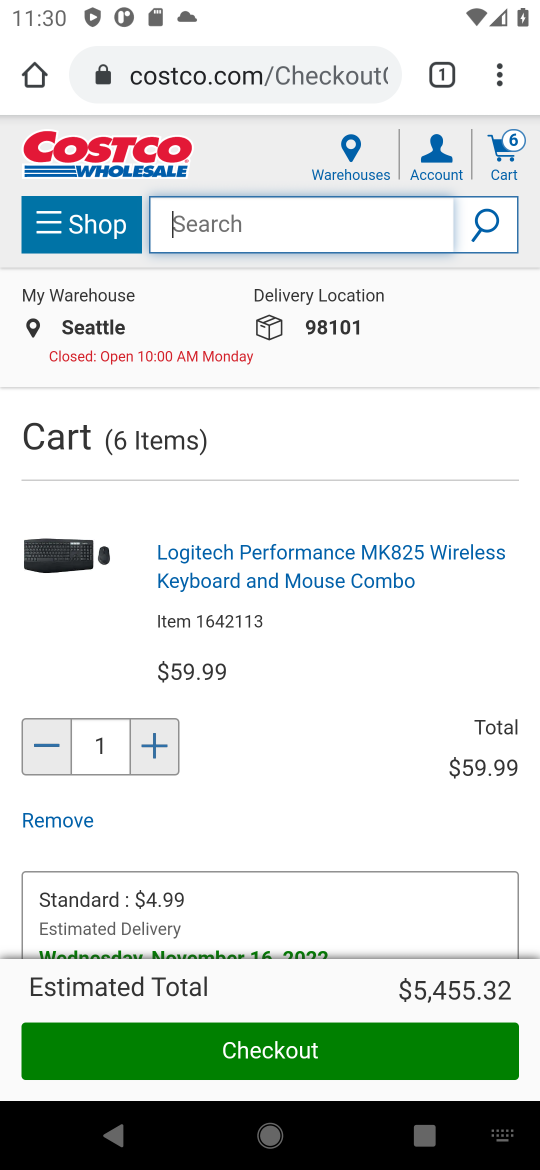
Step 42: type "bose soundlink mini"
Your task to perform on an android device: Clear the shopping cart on costco.com. Search for "bose soundlink mini" on costco.com, select the first entry, and add it to the cart. Image 43: 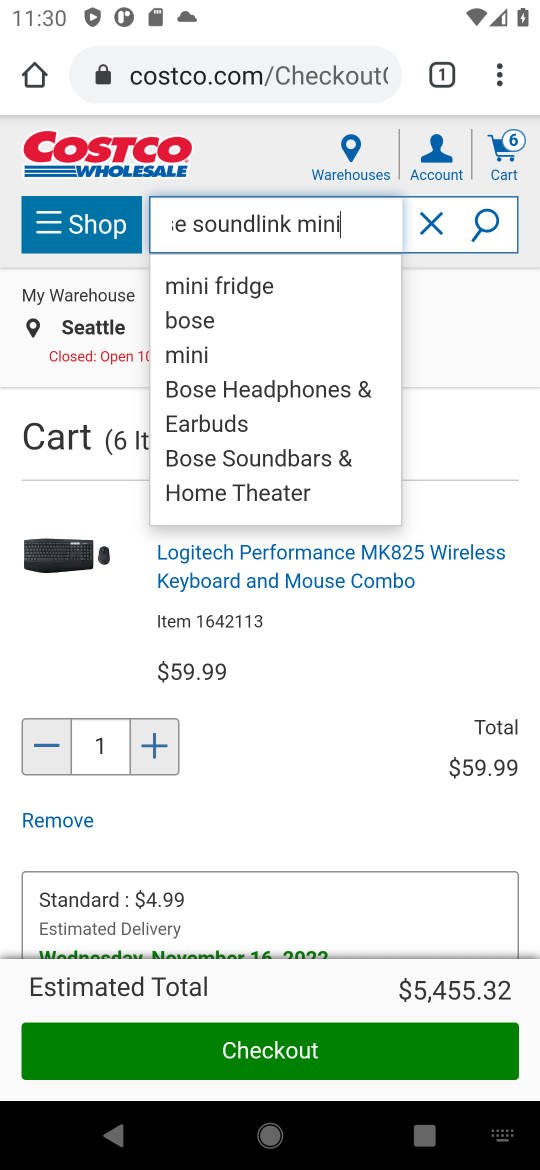
Step 43: click (500, 292)
Your task to perform on an android device: Clear the shopping cart on costco.com. Search for "bose soundlink mini" on costco.com, select the first entry, and add it to the cart. Image 44: 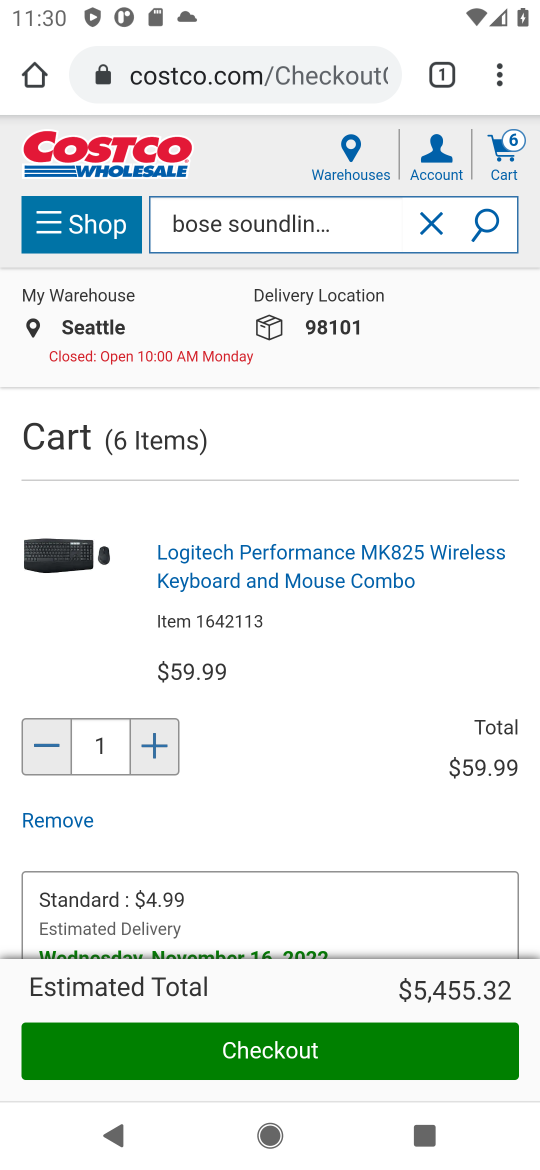
Step 44: click (488, 234)
Your task to perform on an android device: Clear the shopping cart on costco.com. Search for "bose soundlink mini" on costco.com, select the first entry, and add it to the cart. Image 45: 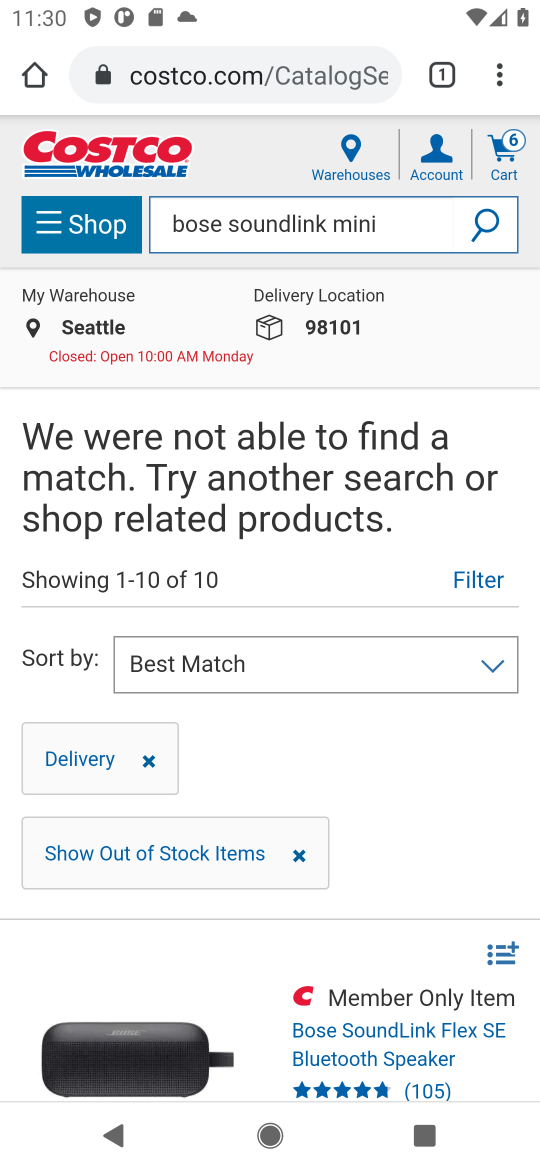
Step 45: task complete